Your task to perform on an android device: choose inbox layout in the gmail app Image 0: 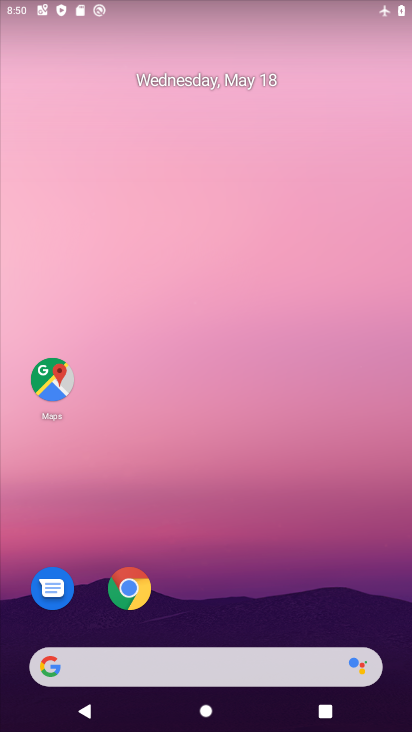
Step 0: drag from (369, 643) to (394, 4)
Your task to perform on an android device: choose inbox layout in the gmail app Image 1: 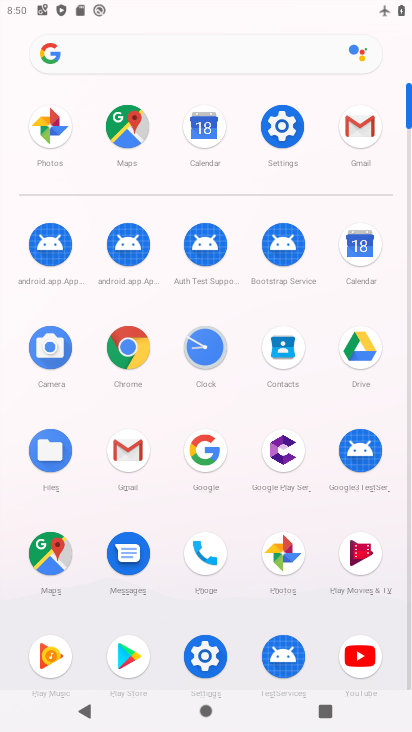
Step 1: click (359, 137)
Your task to perform on an android device: choose inbox layout in the gmail app Image 2: 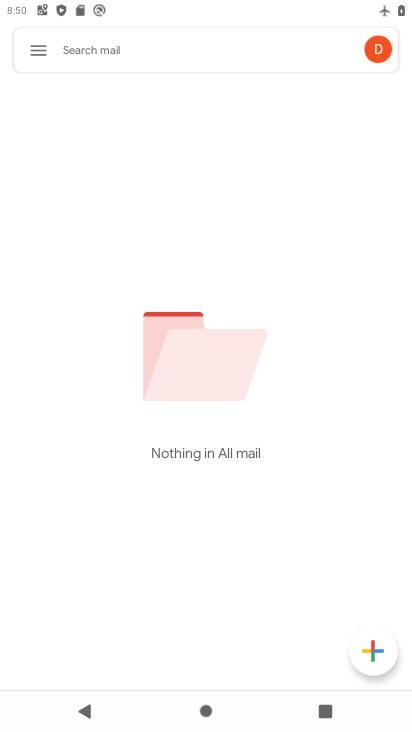
Step 2: click (37, 55)
Your task to perform on an android device: choose inbox layout in the gmail app Image 3: 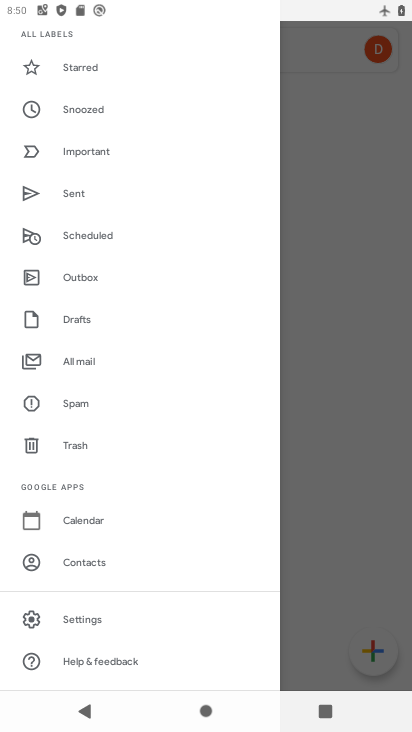
Step 3: click (71, 624)
Your task to perform on an android device: choose inbox layout in the gmail app Image 4: 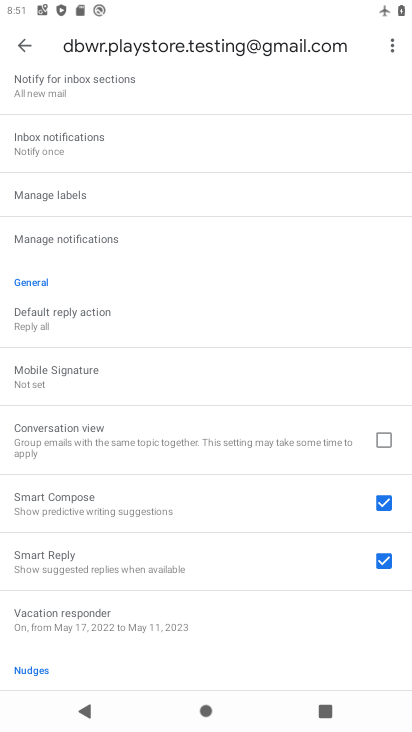
Step 4: drag from (203, 153) to (189, 583)
Your task to perform on an android device: choose inbox layout in the gmail app Image 5: 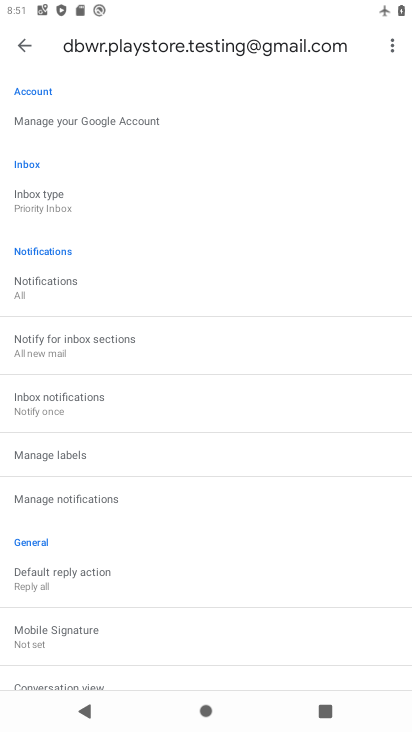
Step 5: click (35, 208)
Your task to perform on an android device: choose inbox layout in the gmail app Image 6: 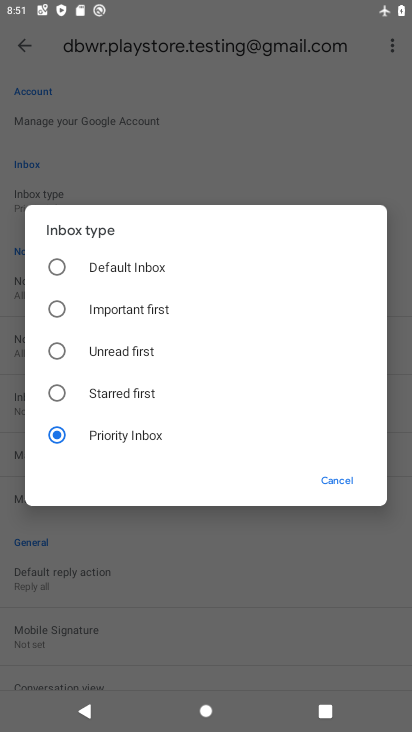
Step 6: click (57, 350)
Your task to perform on an android device: choose inbox layout in the gmail app Image 7: 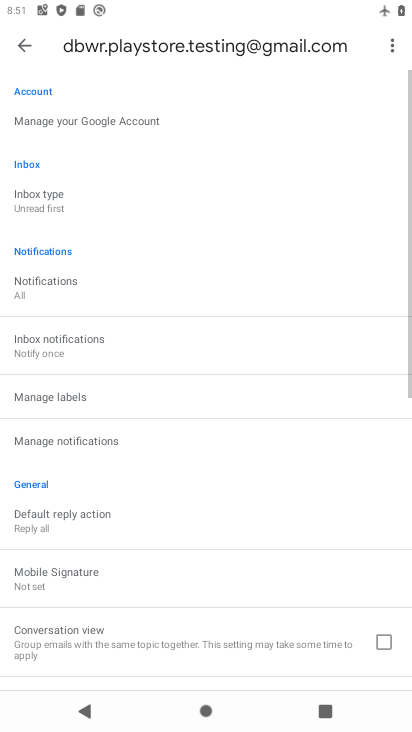
Step 7: task complete